Your task to perform on an android device: Open maps Image 0: 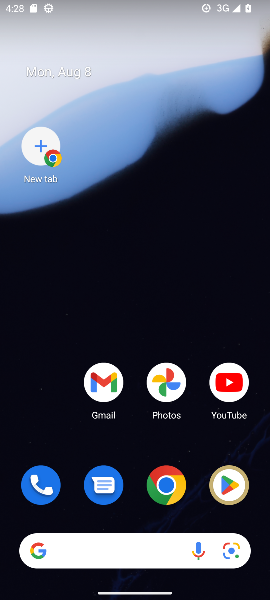
Step 0: drag from (187, 9) to (266, 21)
Your task to perform on an android device: Open maps Image 1: 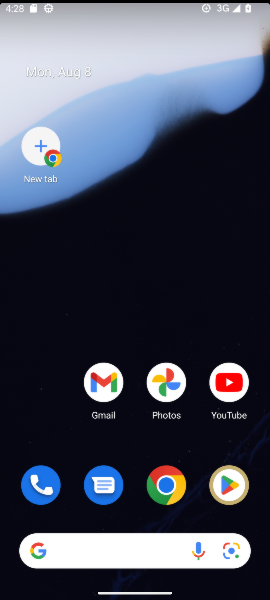
Step 1: drag from (163, 443) to (134, 38)
Your task to perform on an android device: Open maps Image 2: 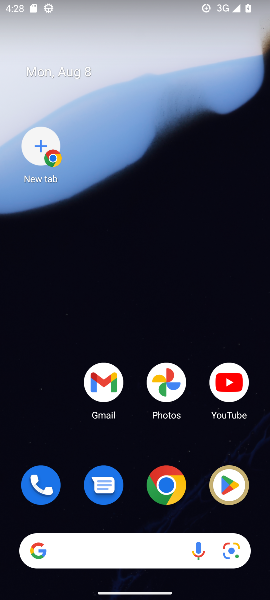
Step 2: drag from (178, 454) to (163, 51)
Your task to perform on an android device: Open maps Image 3: 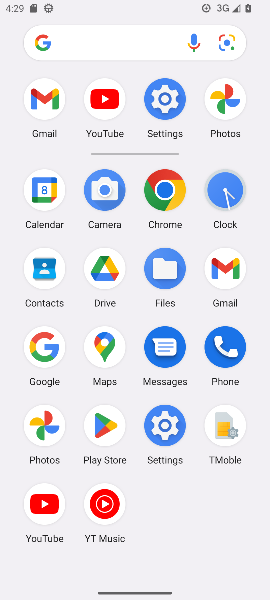
Step 3: drag from (188, 445) to (155, 109)
Your task to perform on an android device: Open maps Image 4: 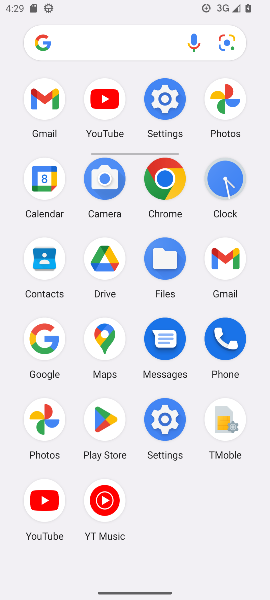
Step 4: drag from (163, 188) to (163, 158)
Your task to perform on an android device: Open maps Image 5: 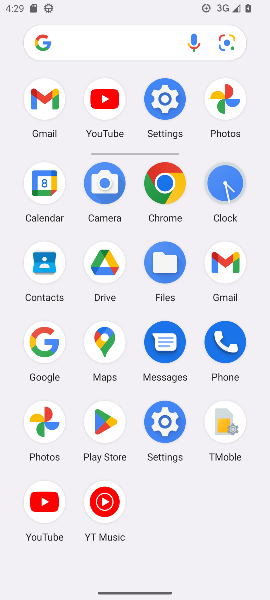
Step 5: drag from (201, 410) to (196, 266)
Your task to perform on an android device: Open maps Image 6: 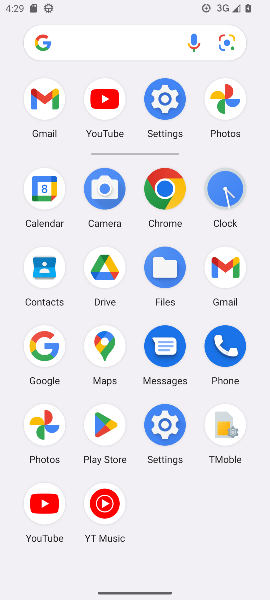
Step 6: drag from (181, 353) to (164, 124)
Your task to perform on an android device: Open maps Image 7: 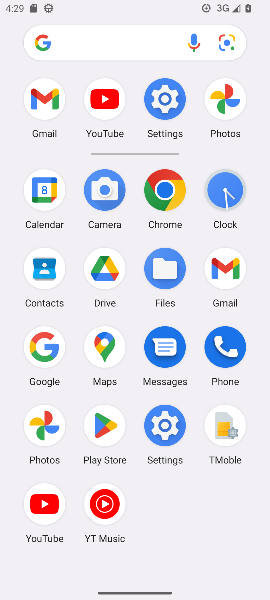
Step 7: click (110, 350)
Your task to perform on an android device: Open maps Image 8: 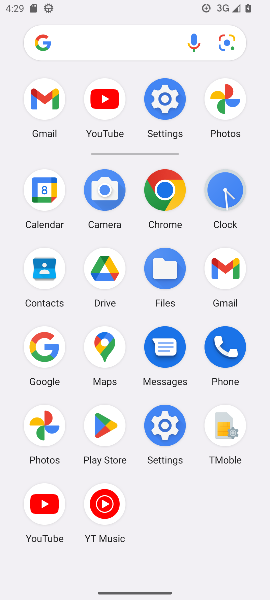
Step 8: click (109, 351)
Your task to perform on an android device: Open maps Image 9: 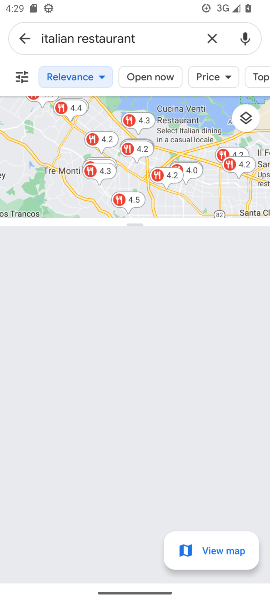
Step 9: click (107, 352)
Your task to perform on an android device: Open maps Image 10: 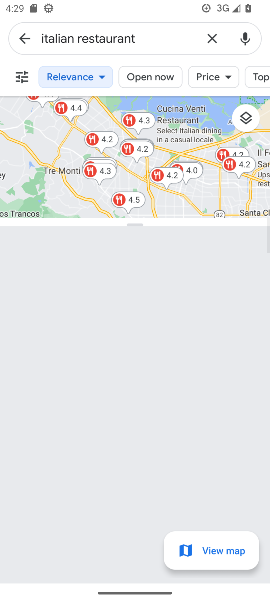
Step 10: click (107, 352)
Your task to perform on an android device: Open maps Image 11: 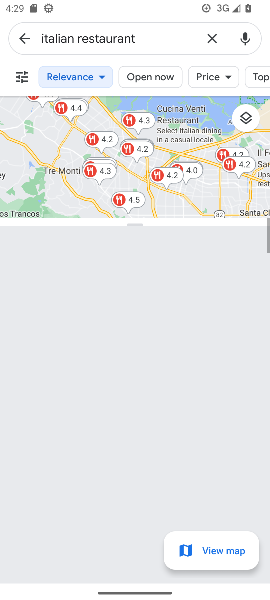
Step 11: click (107, 352)
Your task to perform on an android device: Open maps Image 12: 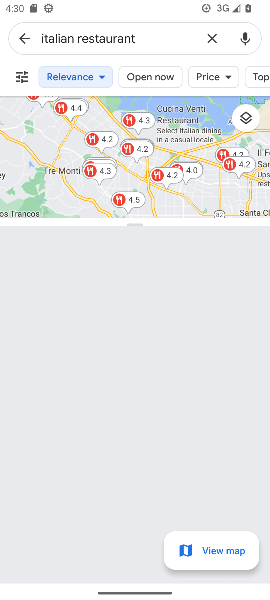
Step 12: click (180, 14)
Your task to perform on an android device: Open maps Image 13: 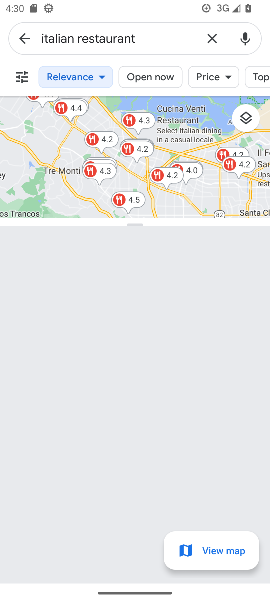
Step 13: task complete